Your task to perform on an android device: turn smart compose on in the gmail app Image 0: 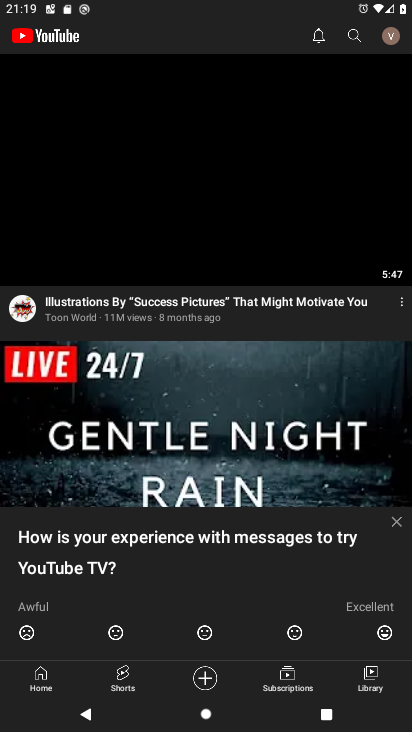
Step 0: press back button
Your task to perform on an android device: turn smart compose on in the gmail app Image 1: 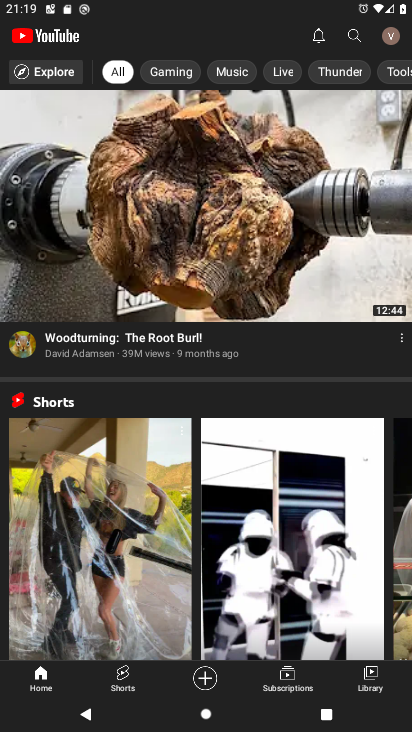
Step 1: press back button
Your task to perform on an android device: turn smart compose on in the gmail app Image 2: 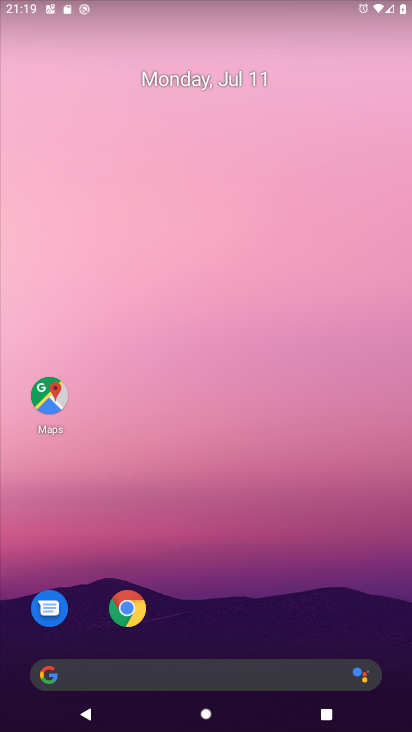
Step 2: drag from (296, 633) to (263, 31)
Your task to perform on an android device: turn smart compose on in the gmail app Image 3: 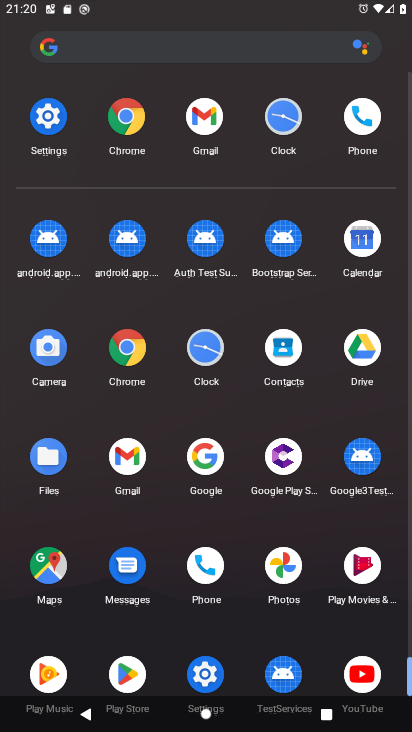
Step 3: click (196, 133)
Your task to perform on an android device: turn smart compose on in the gmail app Image 4: 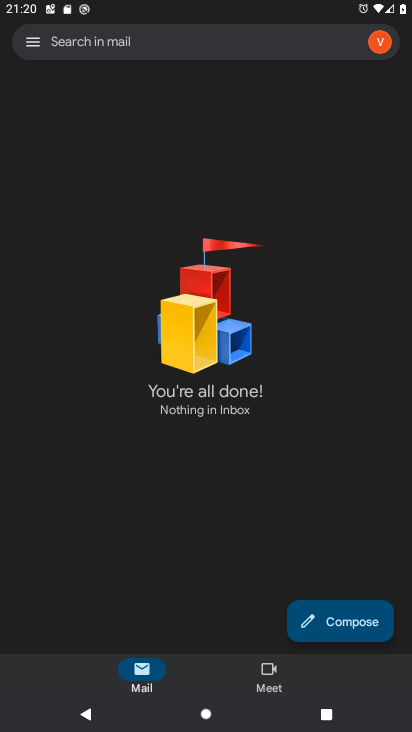
Step 4: click (41, 58)
Your task to perform on an android device: turn smart compose on in the gmail app Image 5: 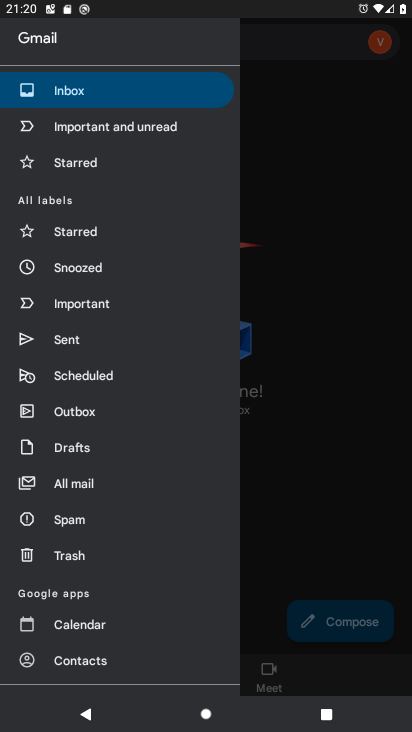
Step 5: drag from (79, 612) to (87, 293)
Your task to perform on an android device: turn smart compose on in the gmail app Image 6: 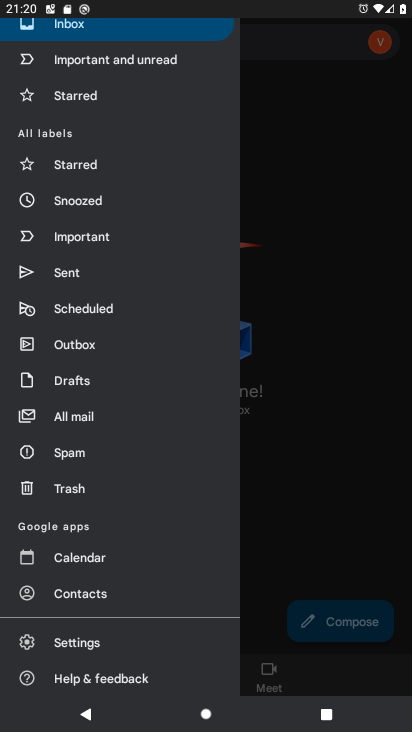
Step 6: click (84, 631)
Your task to perform on an android device: turn smart compose on in the gmail app Image 7: 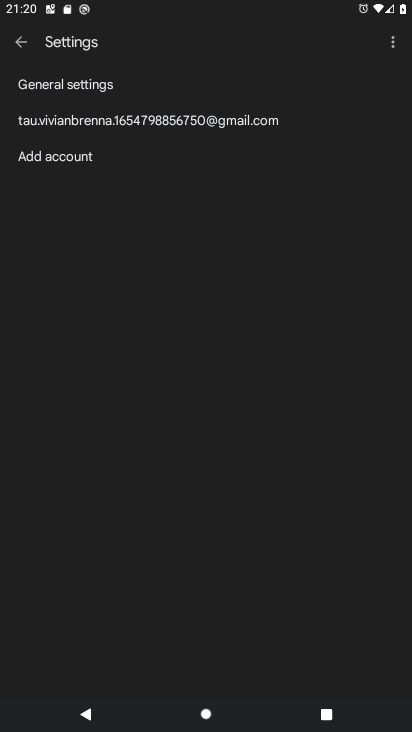
Step 7: click (69, 112)
Your task to perform on an android device: turn smart compose on in the gmail app Image 8: 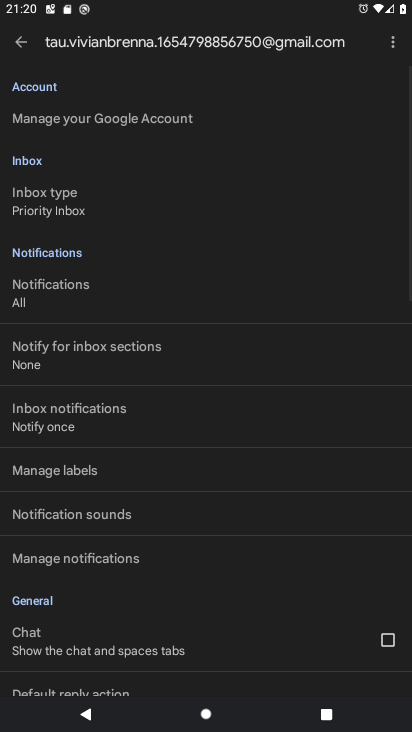
Step 8: task complete